Your task to perform on an android device: change notifications settings Image 0: 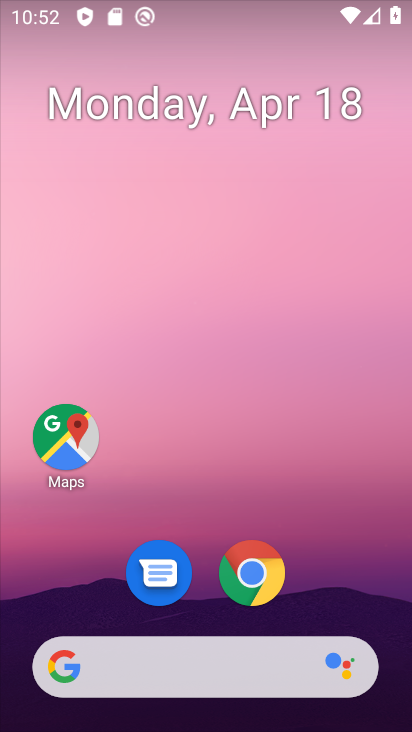
Step 0: drag from (334, 591) to (340, 111)
Your task to perform on an android device: change notifications settings Image 1: 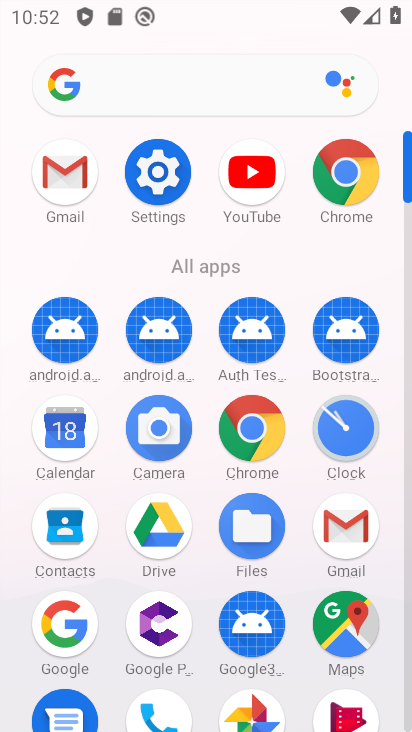
Step 1: click (164, 169)
Your task to perform on an android device: change notifications settings Image 2: 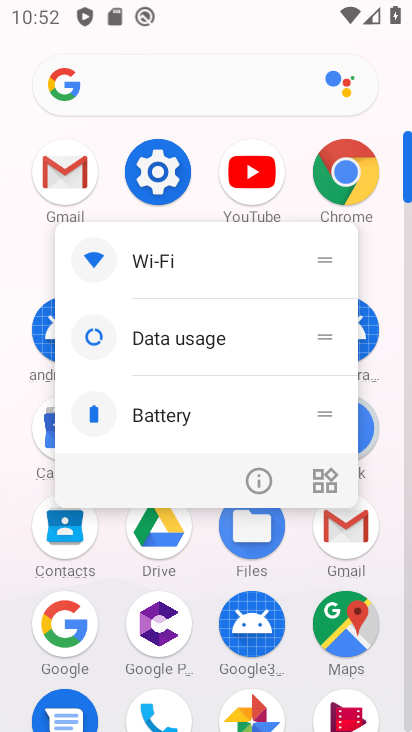
Step 2: click (172, 160)
Your task to perform on an android device: change notifications settings Image 3: 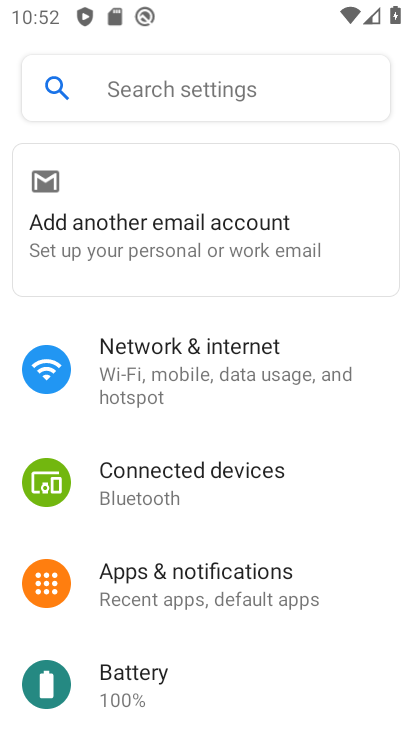
Step 3: drag from (355, 658) to (360, 467)
Your task to perform on an android device: change notifications settings Image 4: 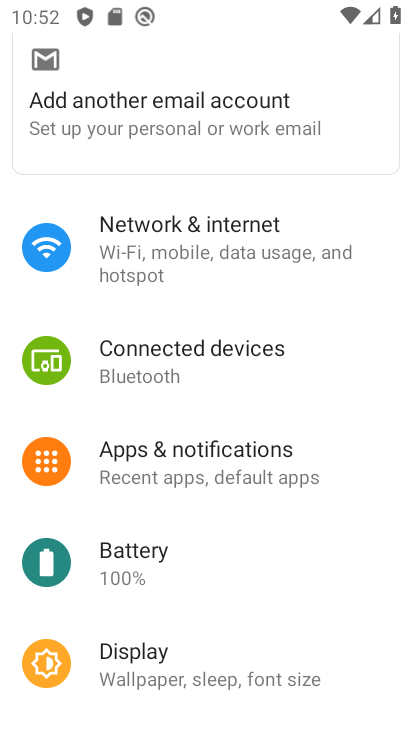
Step 4: click (190, 451)
Your task to perform on an android device: change notifications settings Image 5: 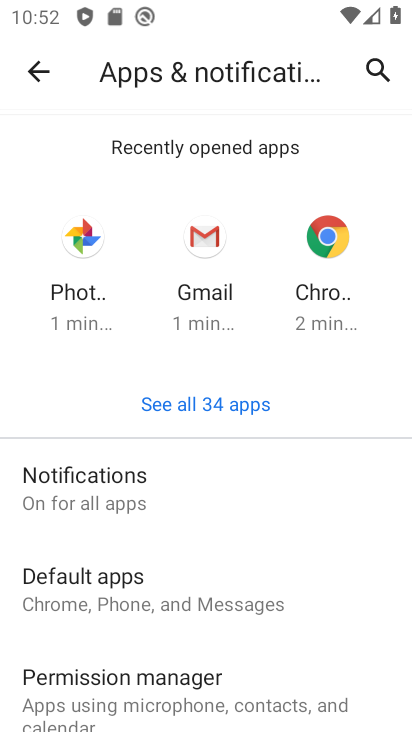
Step 5: click (115, 489)
Your task to perform on an android device: change notifications settings Image 6: 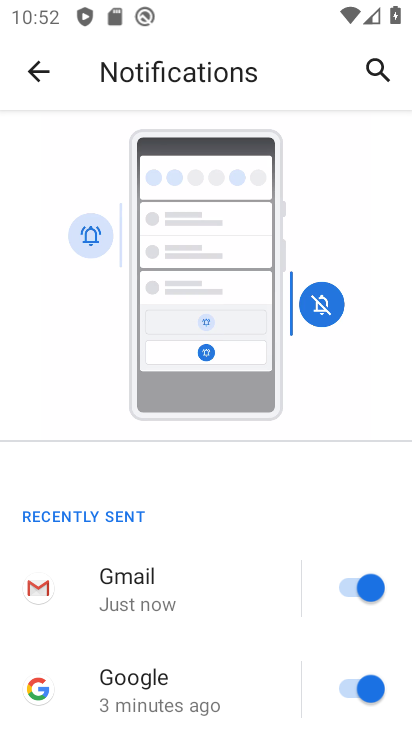
Step 6: drag from (254, 677) to (288, 367)
Your task to perform on an android device: change notifications settings Image 7: 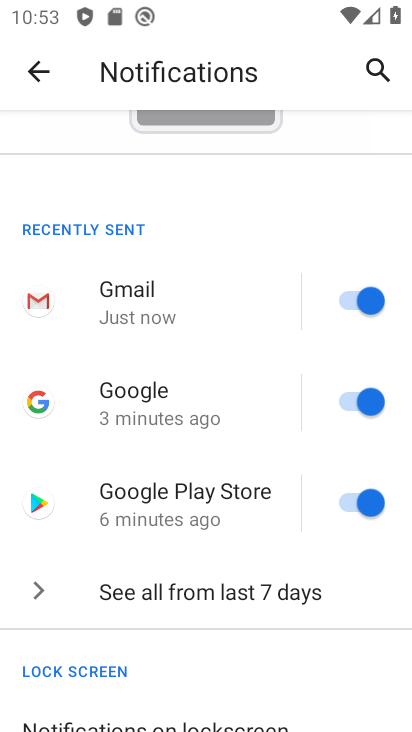
Step 7: click (370, 295)
Your task to perform on an android device: change notifications settings Image 8: 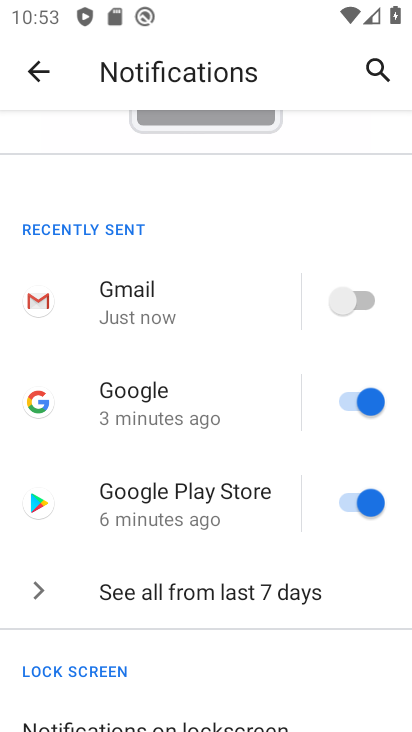
Step 8: task complete